Your task to perform on an android device: Is it going to rain tomorrow? Image 0: 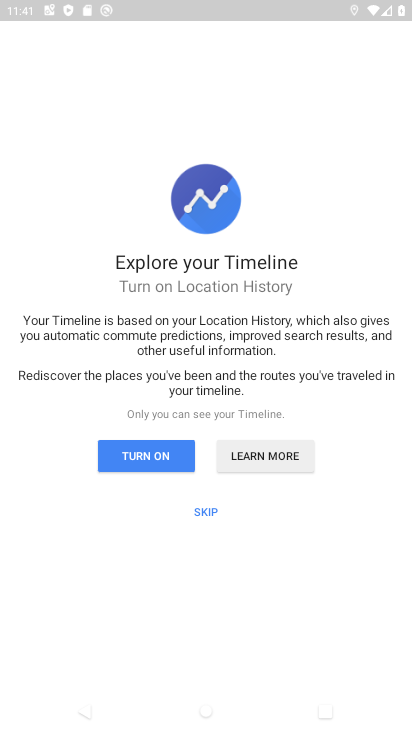
Step 0: click (176, 455)
Your task to perform on an android device: Is it going to rain tomorrow? Image 1: 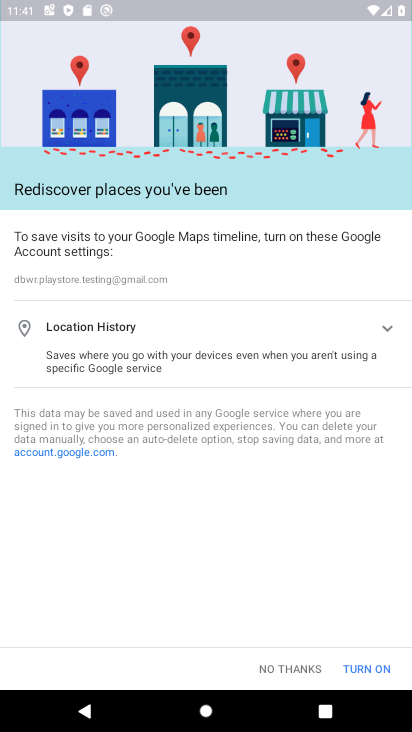
Step 1: press home button
Your task to perform on an android device: Is it going to rain tomorrow? Image 2: 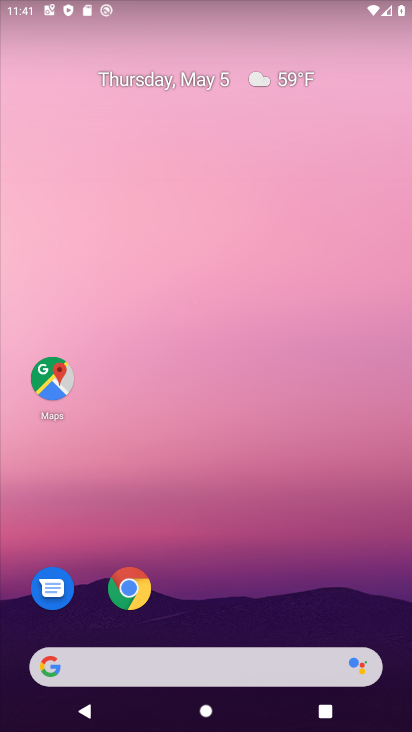
Step 2: click (279, 74)
Your task to perform on an android device: Is it going to rain tomorrow? Image 3: 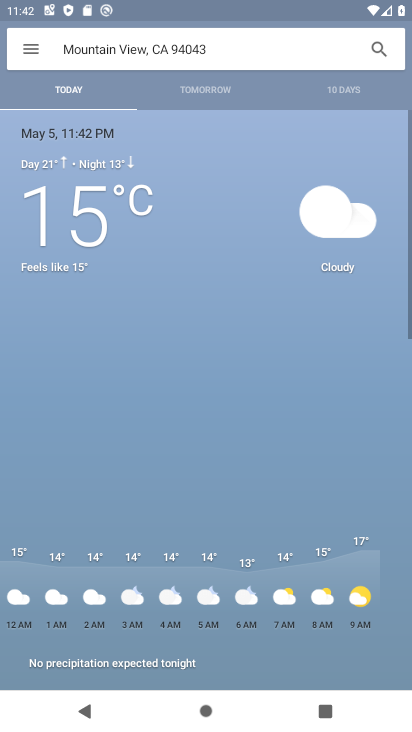
Step 3: click (209, 83)
Your task to perform on an android device: Is it going to rain tomorrow? Image 4: 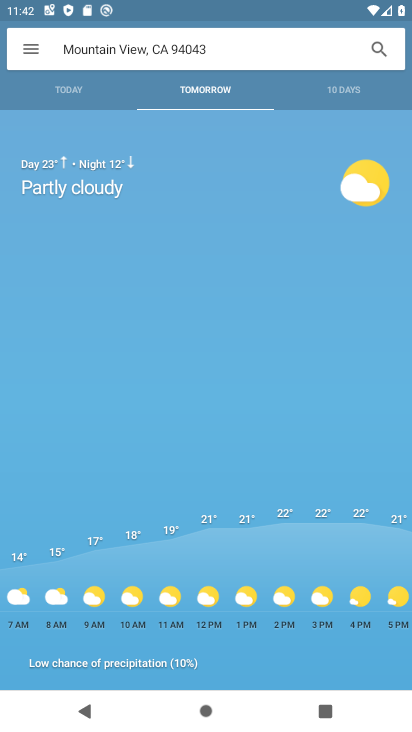
Step 4: task complete